Your task to perform on an android device: turn on notifications settings in the gmail app Image 0: 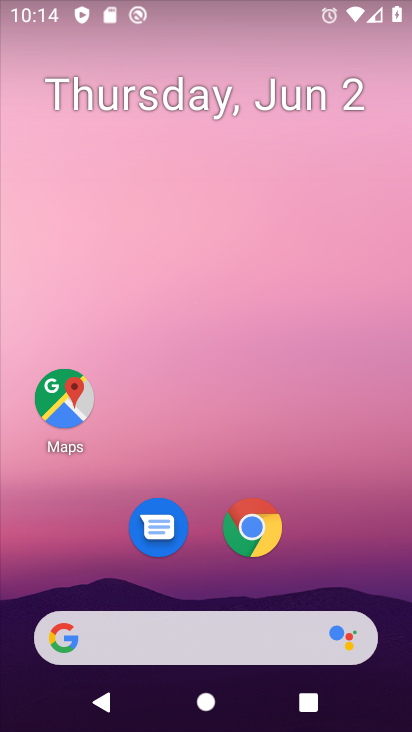
Step 0: drag from (225, 629) to (248, 60)
Your task to perform on an android device: turn on notifications settings in the gmail app Image 1: 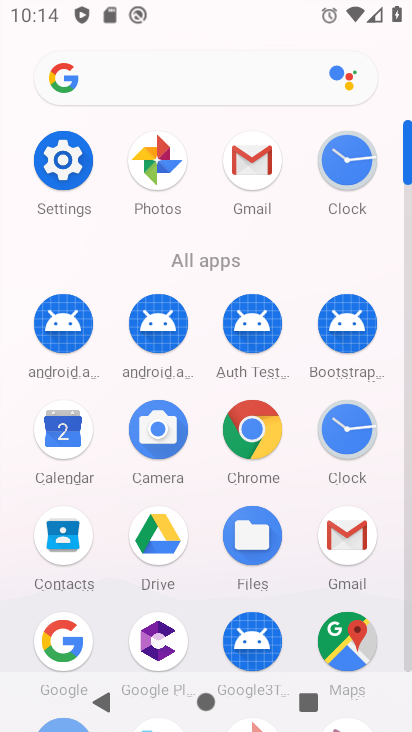
Step 1: click (364, 557)
Your task to perform on an android device: turn on notifications settings in the gmail app Image 2: 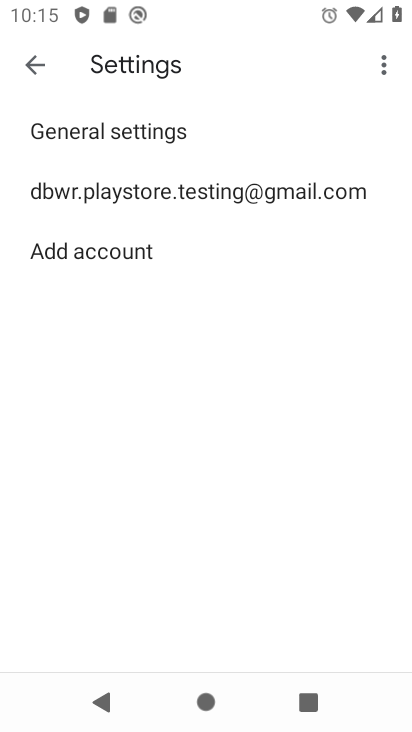
Step 2: click (112, 193)
Your task to perform on an android device: turn on notifications settings in the gmail app Image 3: 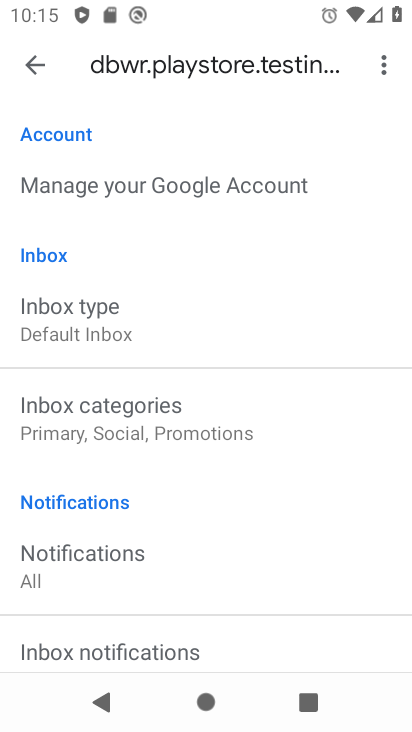
Step 3: drag from (115, 531) to (114, 125)
Your task to perform on an android device: turn on notifications settings in the gmail app Image 4: 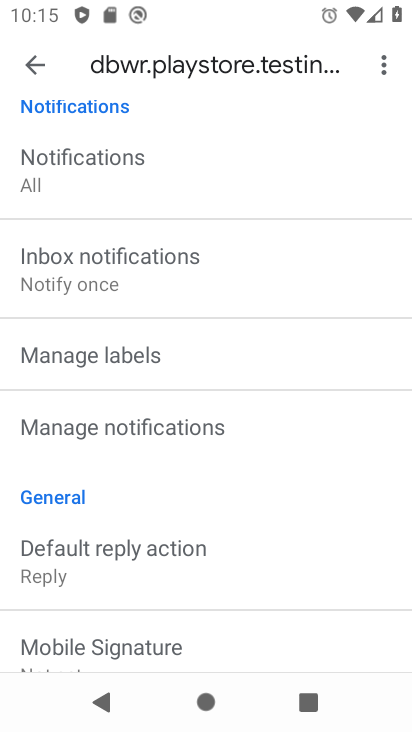
Step 4: click (112, 434)
Your task to perform on an android device: turn on notifications settings in the gmail app Image 5: 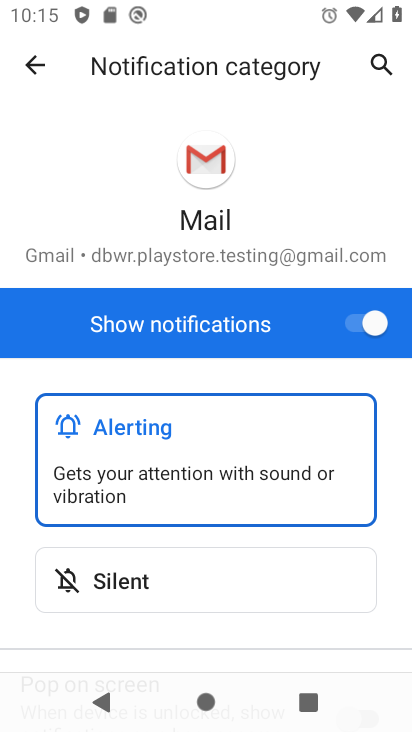
Step 5: task complete